Your task to perform on an android device: check google app version Image 0: 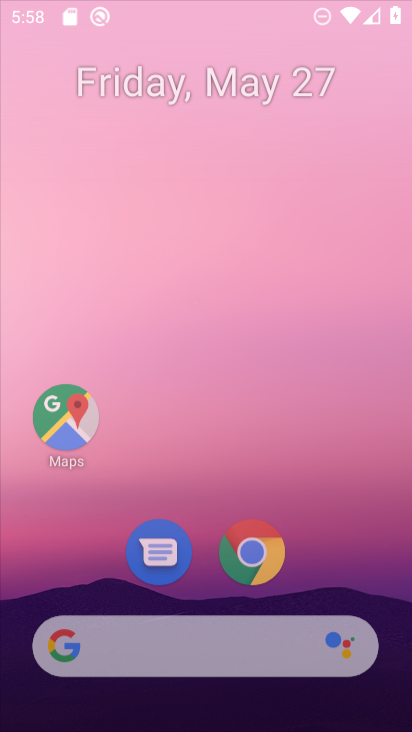
Step 0: press home button
Your task to perform on an android device: check google app version Image 1: 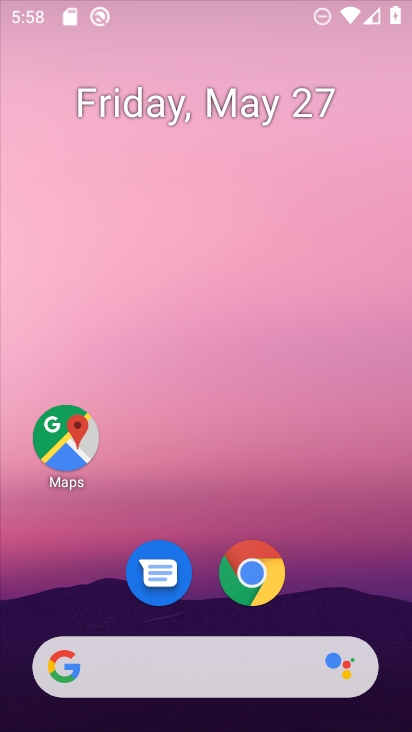
Step 1: press home button
Your task to perform on an android device: check google app version Image 2: 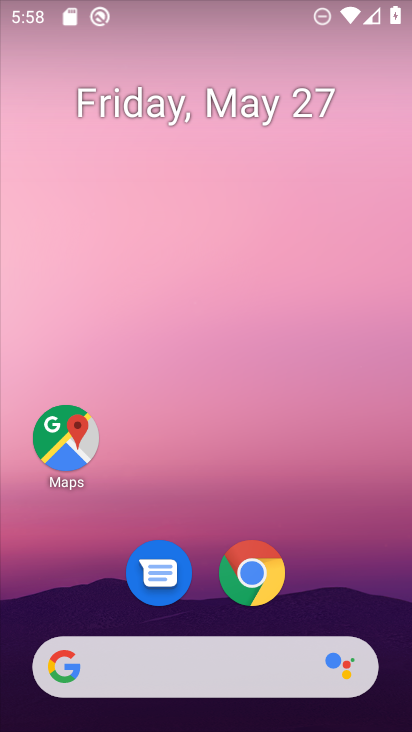
Step 2: drag from (214, 609) to (232, 4)
Your task to perform on an android device: check google app version Image 3: 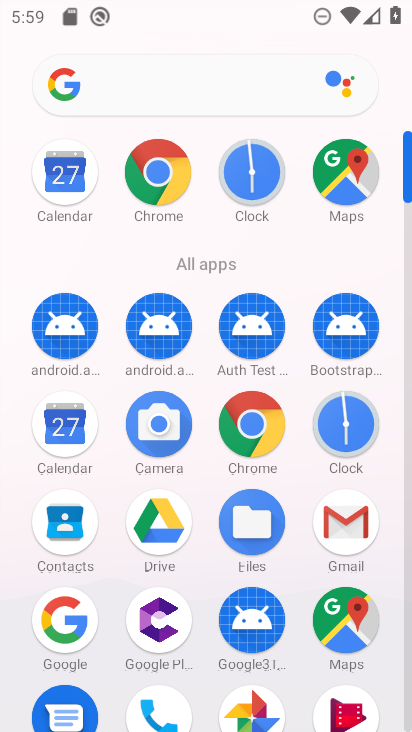
Step 3: click (69, 614)
Your task to perform on an android device: check google app version Image 4: 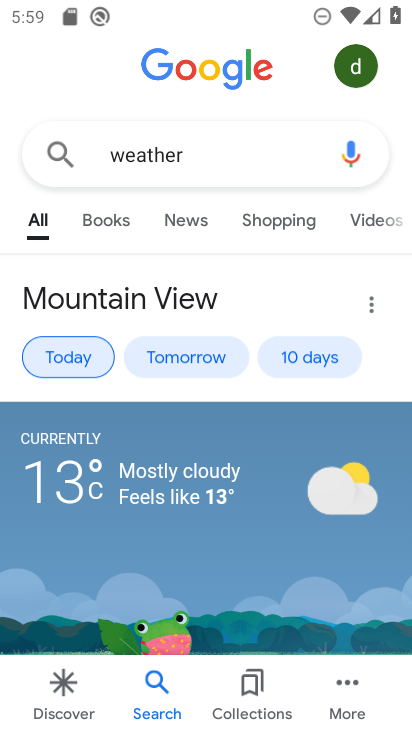
Step 4: click (341, 678)
Your task to perform on an android device: check google app version Image 5: 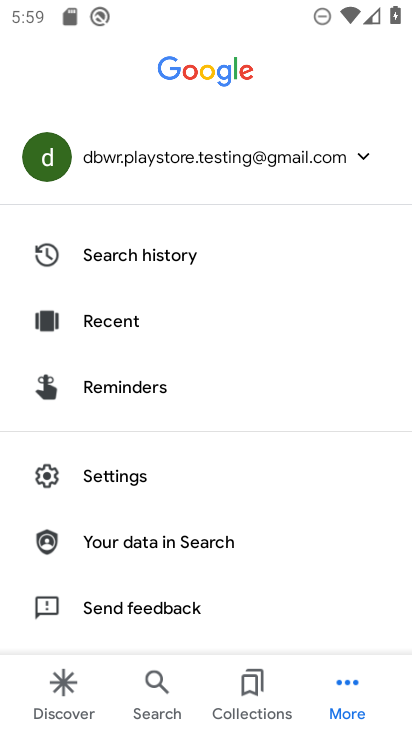
Step 5: click (125, 466)
Your task to perform on an android device: check google app version Image 6: 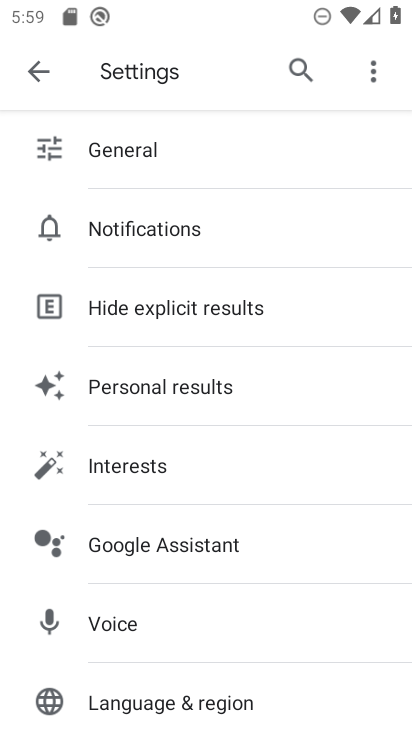
Step 6: drag from (171, 678) to (194, 261)
Your task to perform on an android device: check google app version Image 7: 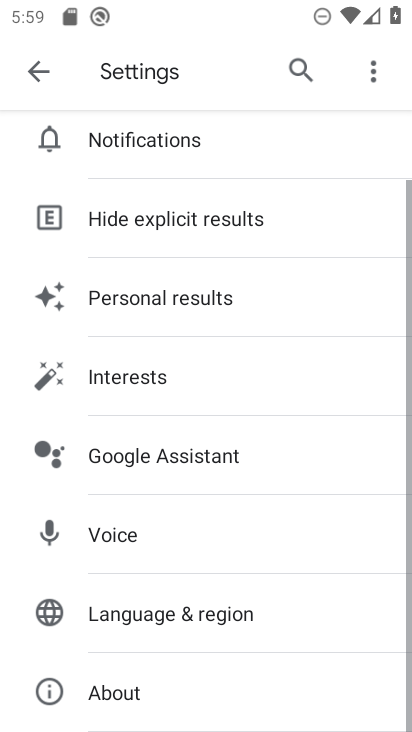
Step 7: click (160, 692)
Your task to perform on an android device: check google app version Image 8: 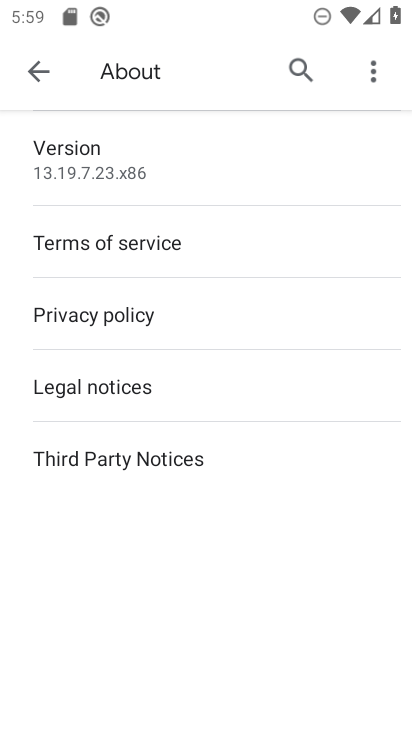
Step 8: task complete